Your task to perform on an android device: Open display settings Image 0: 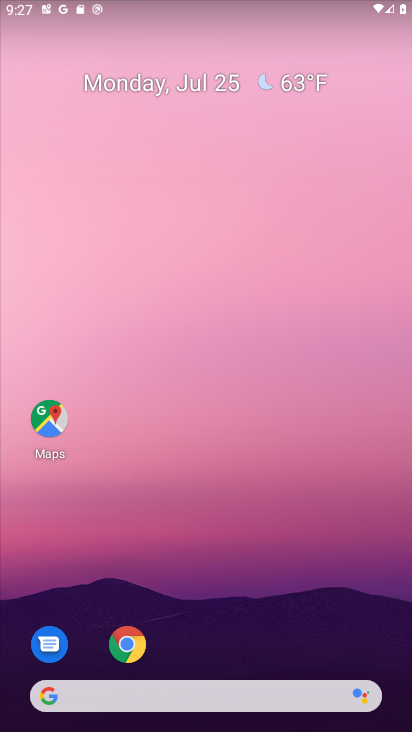
Step 0: drag from (249, 627) to (145, 93)
Your task to perform on an android device: Open display settings Image 1: 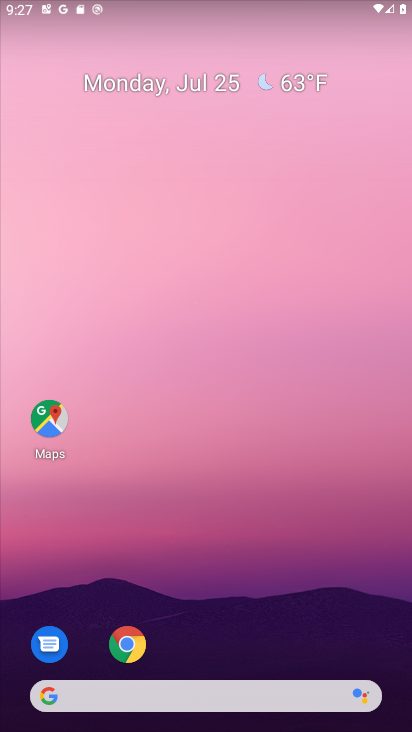
Step 1: drag from (166, 308) to (166, 101)
Your task to perform on an android device: Open display settings Image 2: 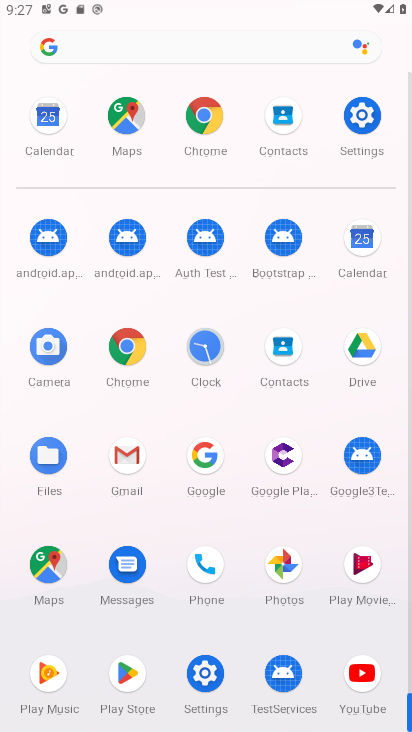
Step 2: drag from (197, 221) to (221, 28)
Your task to perform on an android device: Open display settings Image 3: 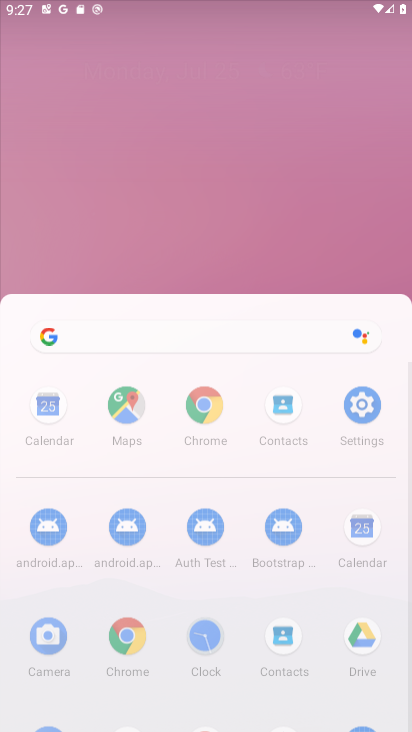
Step 3: click (238, 111)
Your task to perform on an android device: Open display settings Image 4: 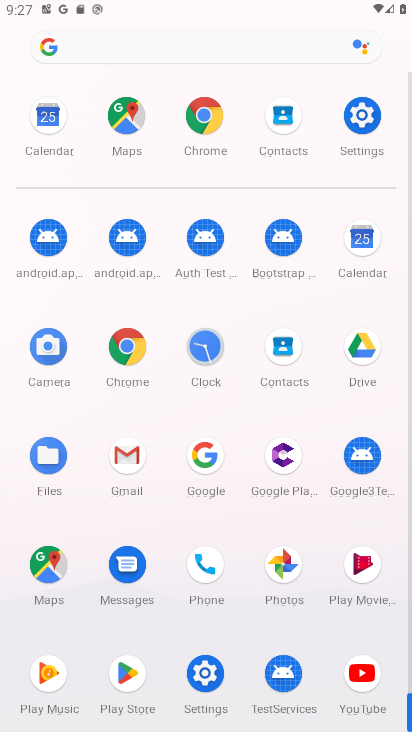
Step 4: drag from (293, 209) to (180, 6)
Your task to perform on an android device: Open display settings Image 5: 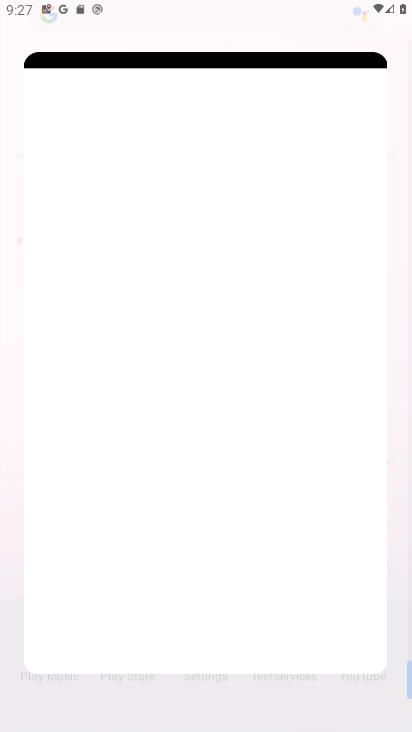
Step 5: drag from (318, 231) to (264, 61)
Your task to perform on an android device: Open display settings Image 6: 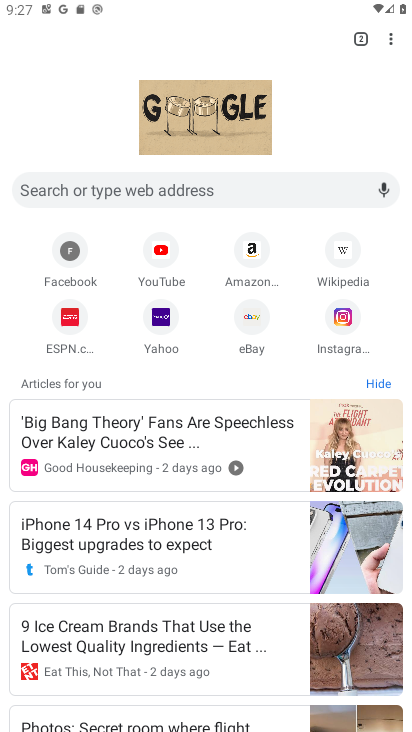
Step 6: press back button
Your task to perform on an android device: Open display settings Image 7: 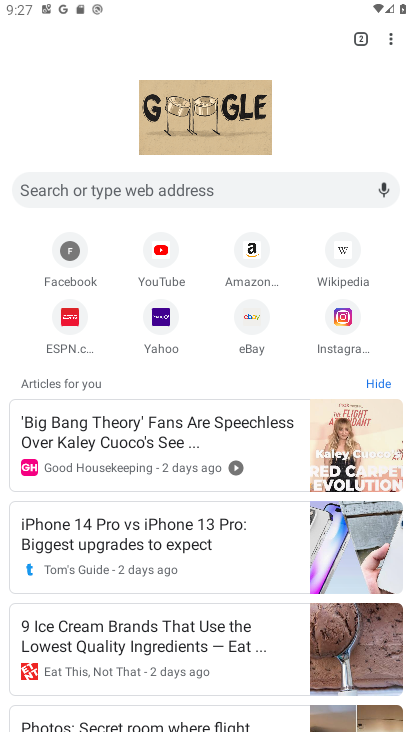
Step 7: press back button
Your task to perform on an android device: Open display settings Image 8: 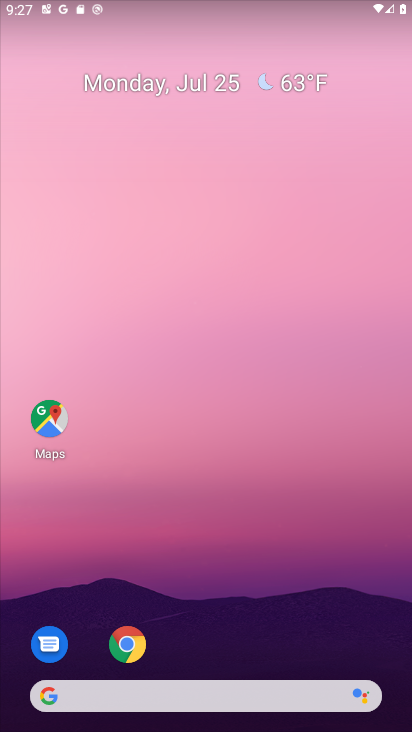
Step 8: drag from (148, 596) to (148, 166)
Your task to perform on an android device: Open display settings Image 9: 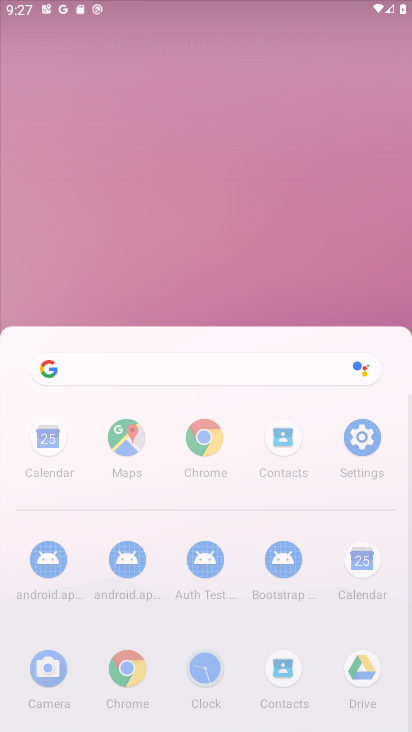
Step 9: drag from (173, 564) to (198, 155)
Your task to perform on an android device: Open display settings Image 10: 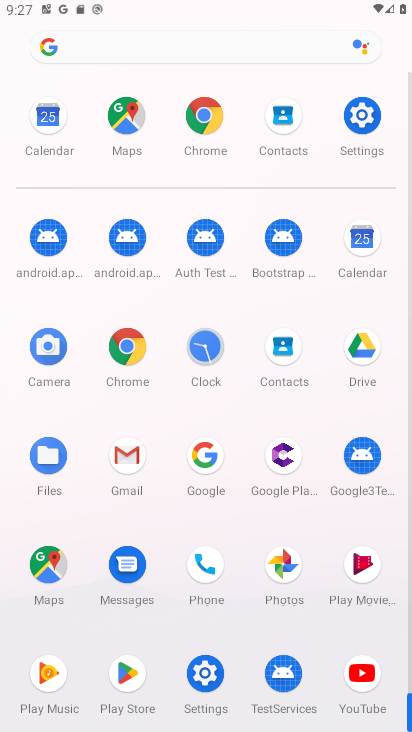
Step 10: drag from (191, 540) to (171, 121)
Your task to perform on an android device: Open display settings Image 11: 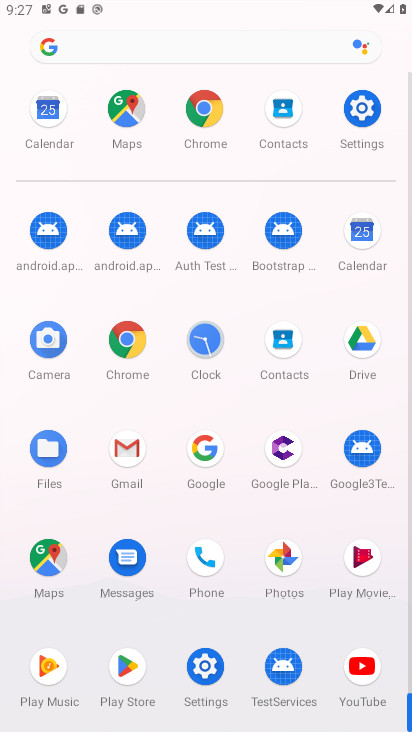
Step 11: click (354, 102)
Your task to perform on an android device: Open display settings Image 12: 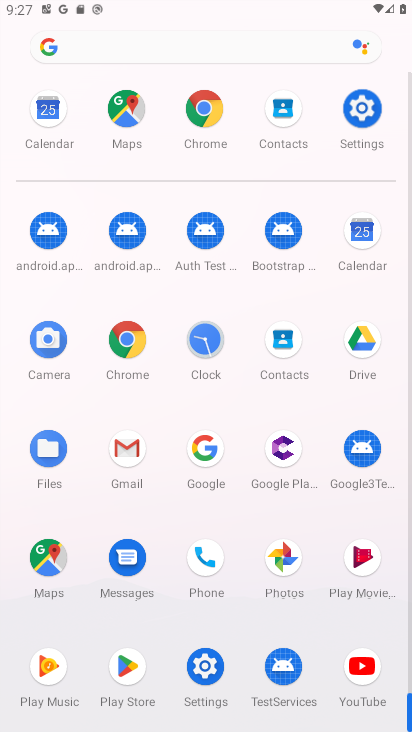
Step 12: click (356, 103)
Your task to perform on an android device: Open display settings Image 13: 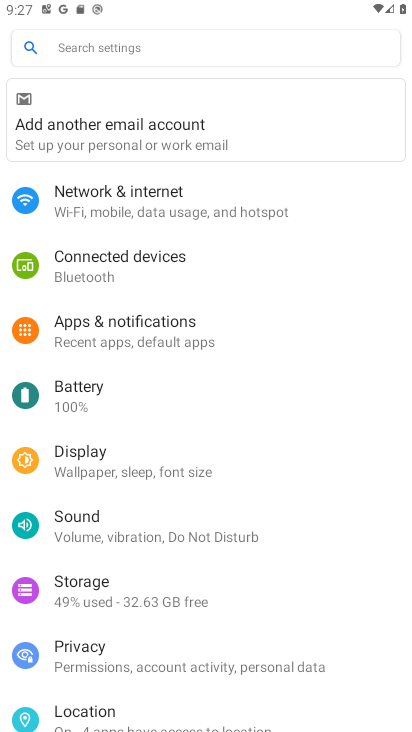
Step 13: click (80, 463)
Your task to perform on an android device: Open display settings Image 14: 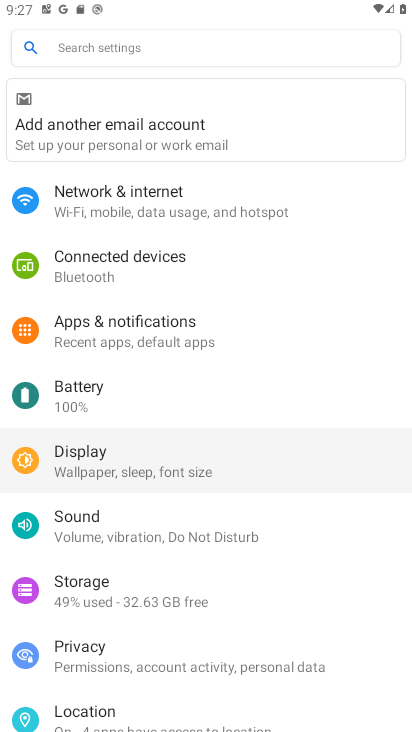
Step 14: click (80, 459)
Your task to perform on an android device: Open display settings Image 15: 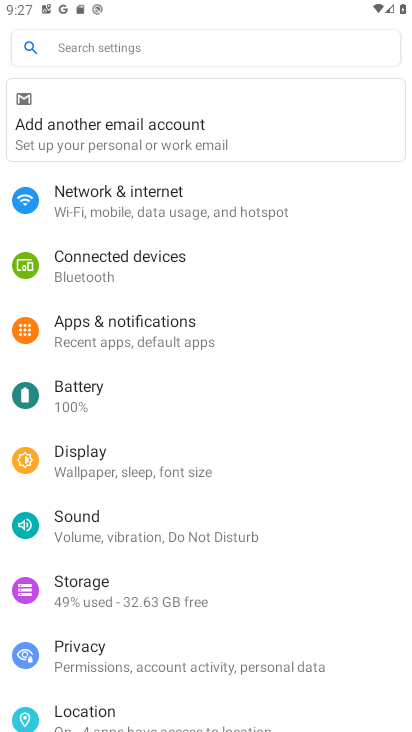
Step 15: click (80, 459)
Your task to perform on an android device: Open display settings Image 16: 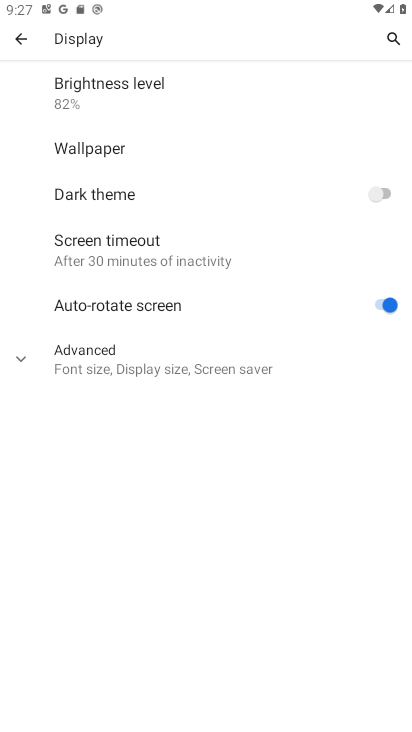
Step 16: task complete